Your task to perform on an android device: Open ESPN.com Image 0: 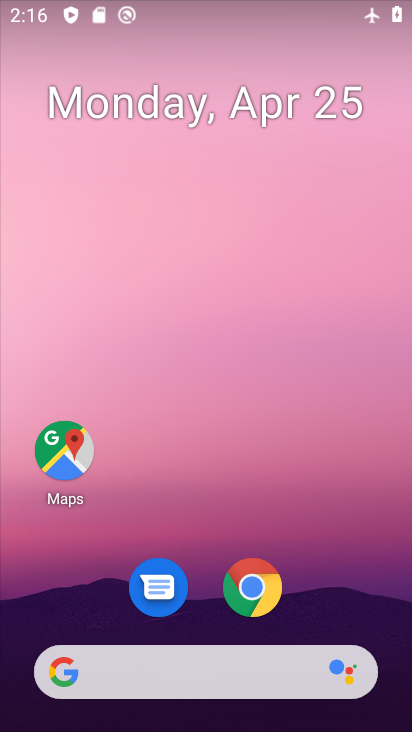
Step 0: click (254, 591)
Your task to perform on an android device: Open ESPN.com Image 1: 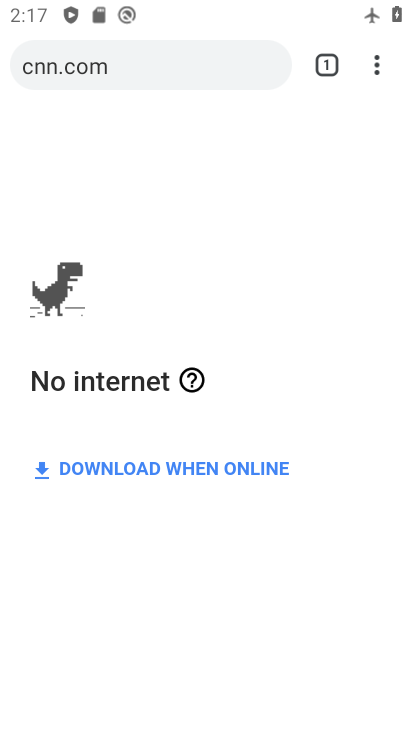
Step 1: click (200, 66)
Your task to perform on an android device: Open ESPN.com Image 2: 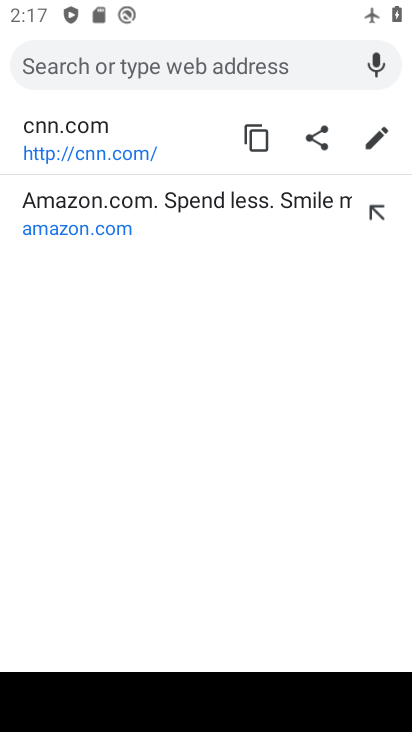
Step 2: type "espn.com"
Your task to perform on an android device: Open ESPN.com Image 3: 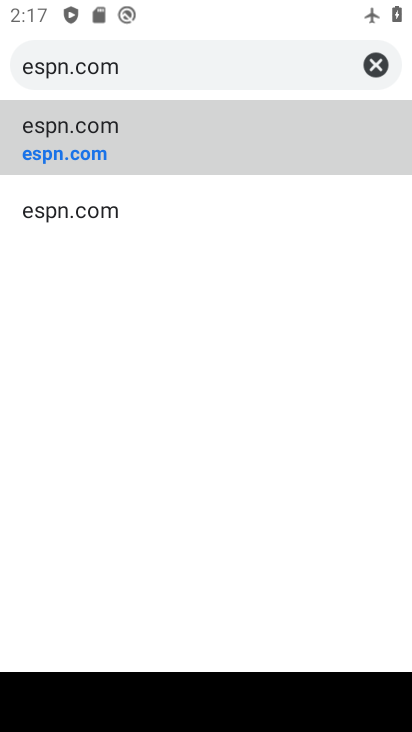
Step 3: click (53, 165)
Your task to perform on an android device: Open ESPN.com Image 4: 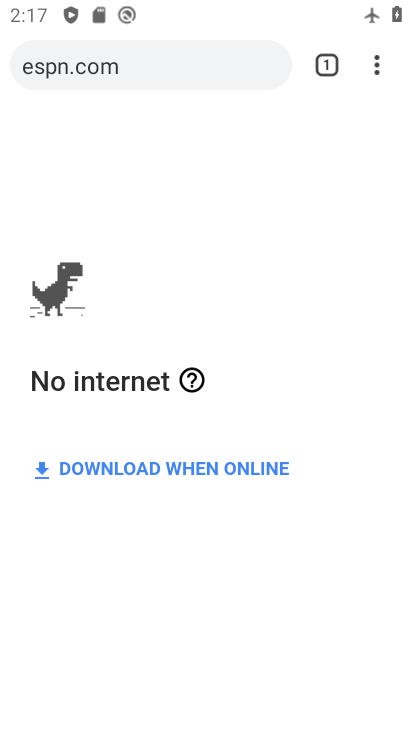
Step 4: task complete